Your task to perform on an android device: Go to settings Image 0: 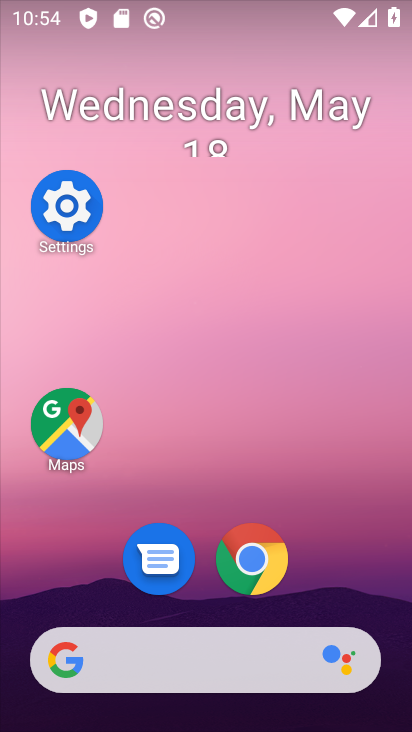
Step 0: click (45, 202)
Your task to perform on an android device: Go to settings Image 1: 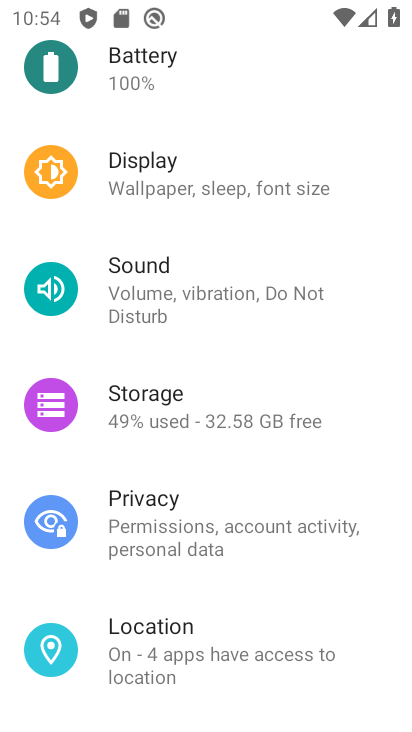
Step 1: task complete